Your task to perform on an android device: Clear the shopping cart on bestbuy.com. Search for acer nitro on bestbuy.com, select the first entry, add it to the cart, then select checkout. Image 0: 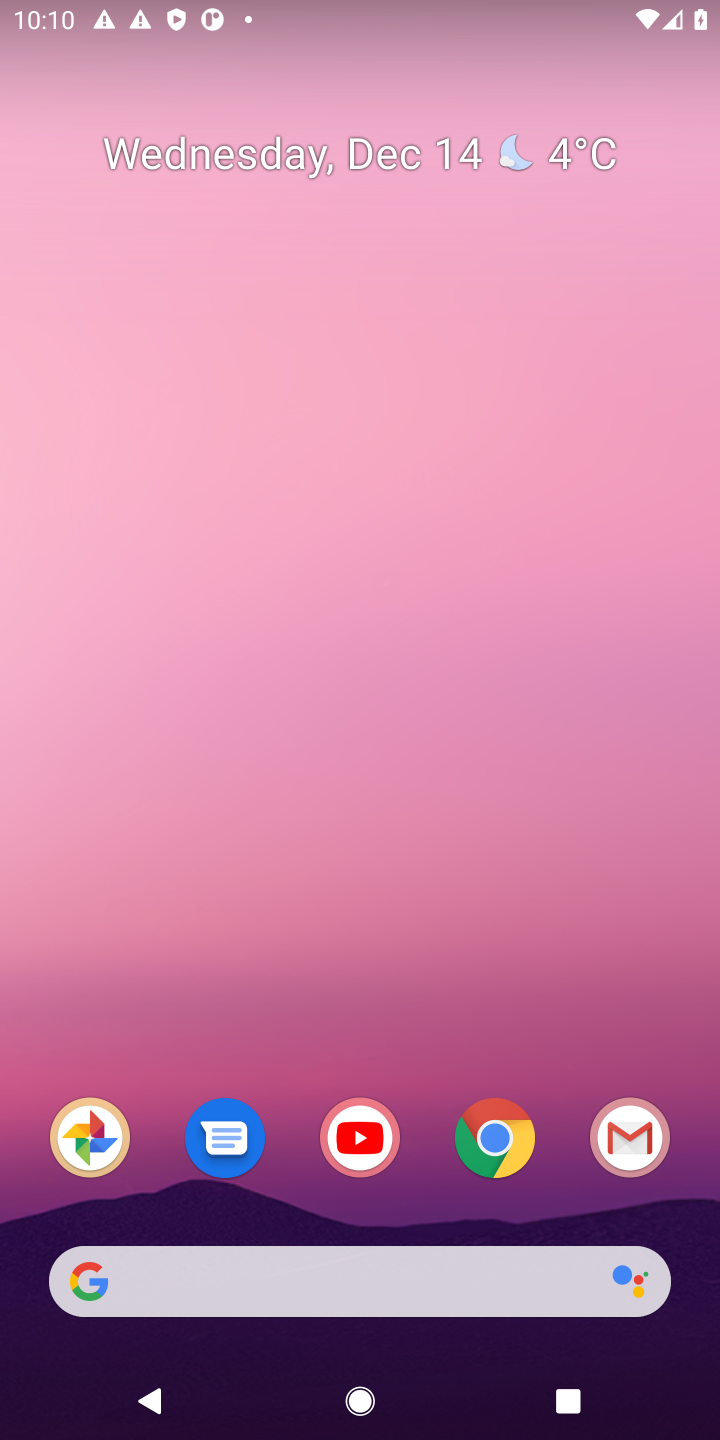
Step 0: click (482, 1147)
Your task to perform on an android device: Clear the shopping cart on bestbuy.com. Search for acer nitro on bestbuy.com, select the first entry, add it to the cart, then select checkout. Image 1: 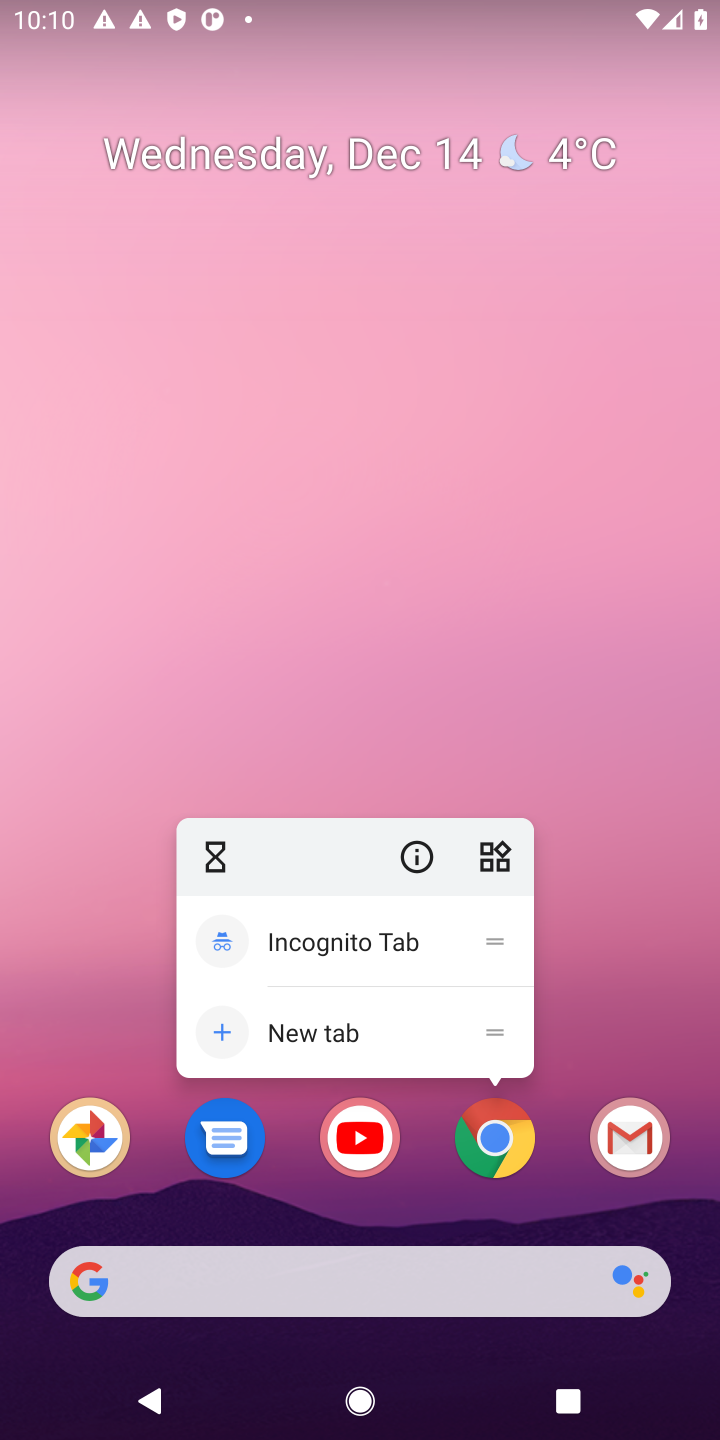
Step 1: click (482, 1147)
Your task to perform on an android device: Clear the shopping cart on bestbuy.com. Search for acer nitro on bestbuy.com, select the first entry, add it to the cart, then select checkout. Image 2: 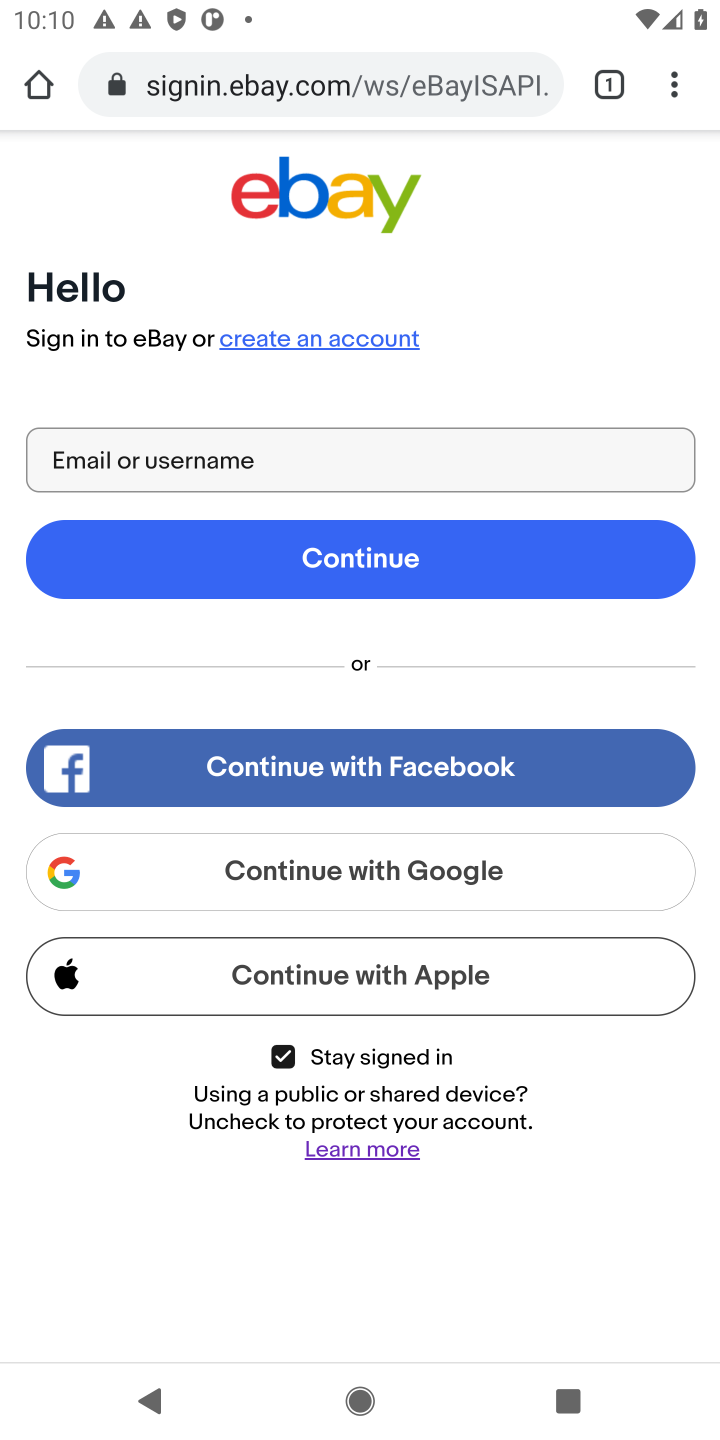
Step 2: click (292, 86)
Your task to perform on an android device: Clear the shopping cart on bestbuy.com. Search for acer nitro on bestbuy.com, select the first entry, add it to the cart, then select checkout. Image 3: 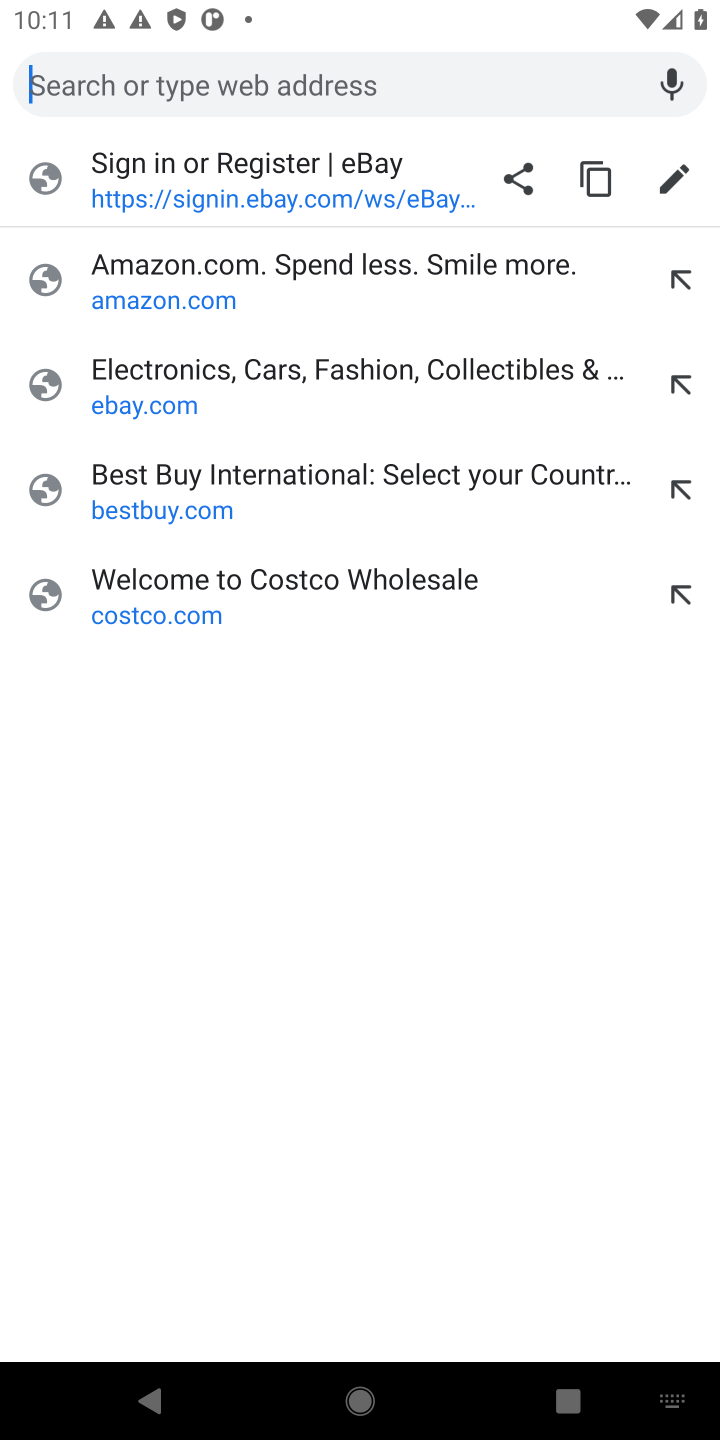
Step 3: click (143, 504)
Your task to perform on an android device: Clear the shopping cart on bestbuy.com. Search for acer nitro on bestbuy.com, select the first entry, add it to the cart, then select checkout. Image 4: 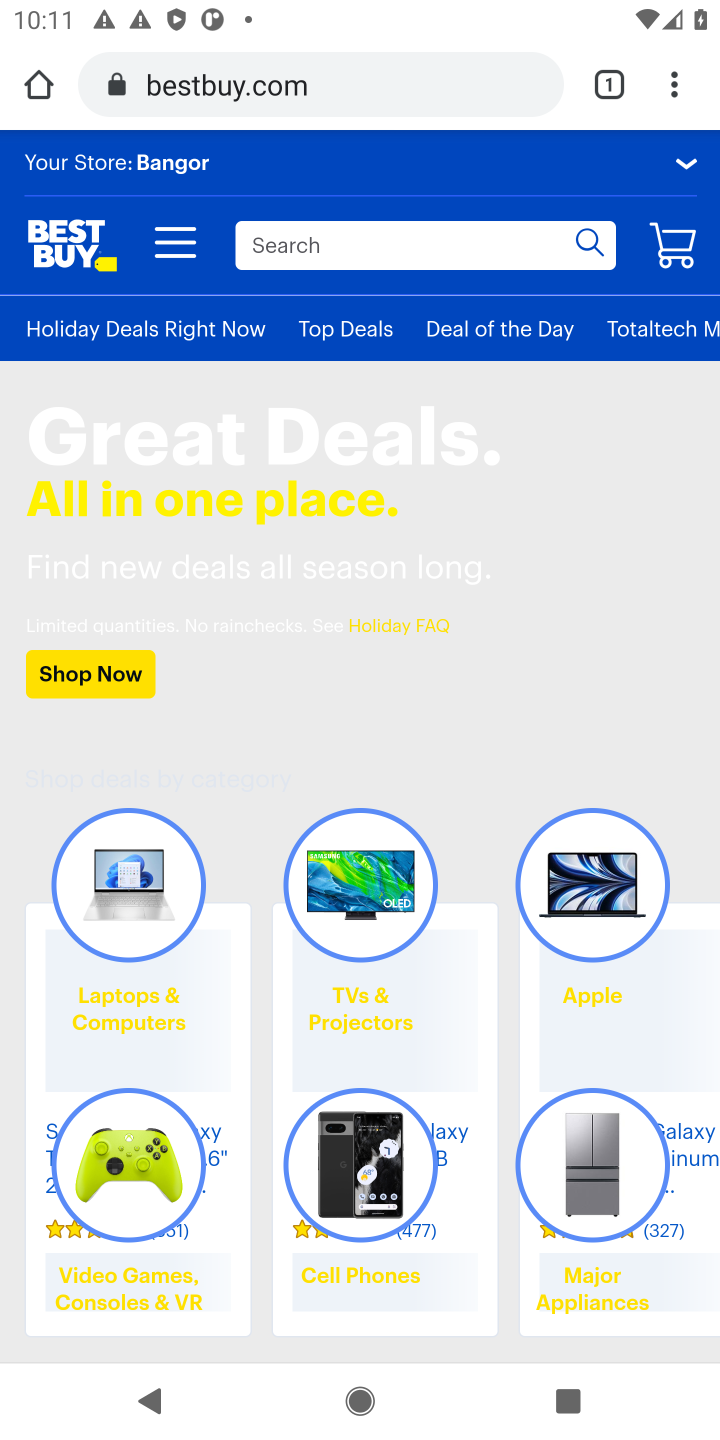
Step 4: click (672, 257)
Your task to perform on an android device: Clear the shopping cart on bestbuy.com. Search for acer nitro on bestbuy.com, select the first entry, add it to the cart, then select checkout. Image 5: 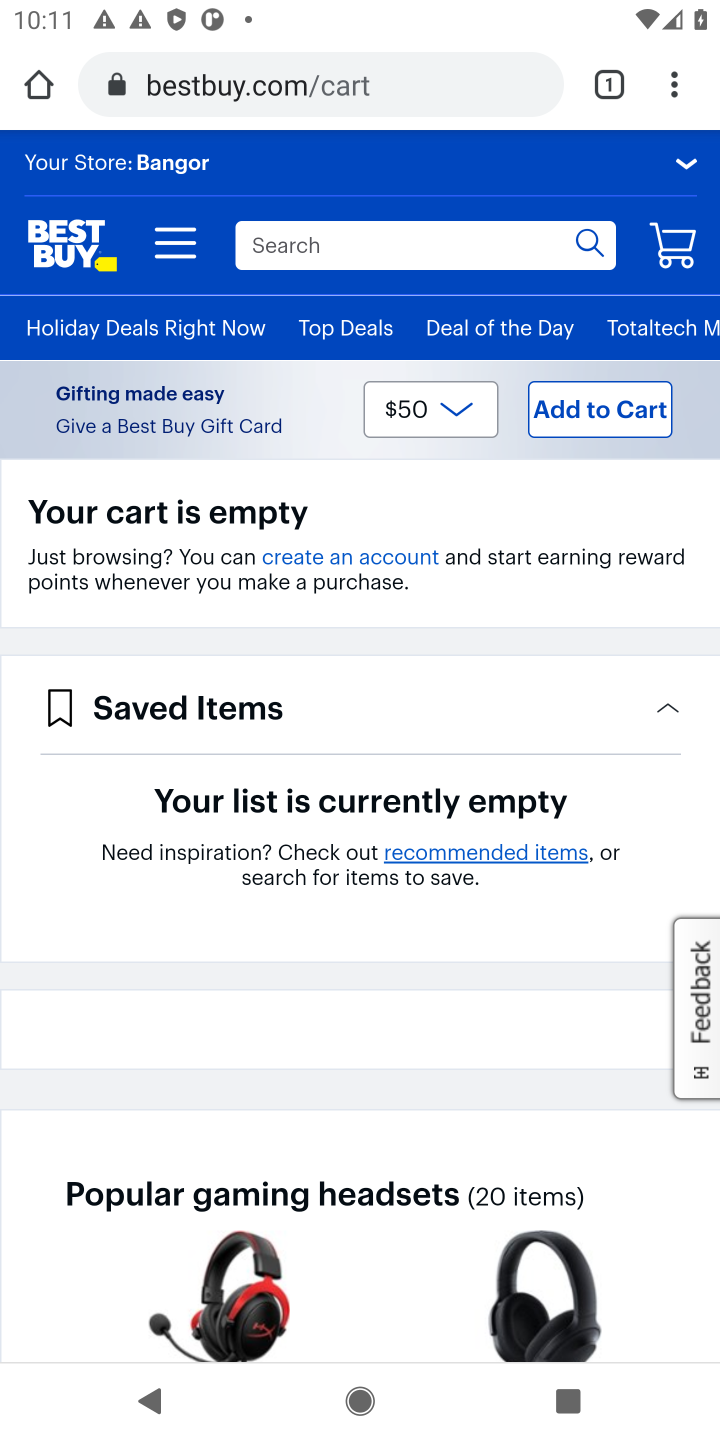
Step 5: click (316, 230)
Your task to perform on an android device: Clear the shopping cart on bestbuy.com. Search for acer nitro on bestbuy.com, select the first entry, add it to the cart, then select checkout. Image 6: 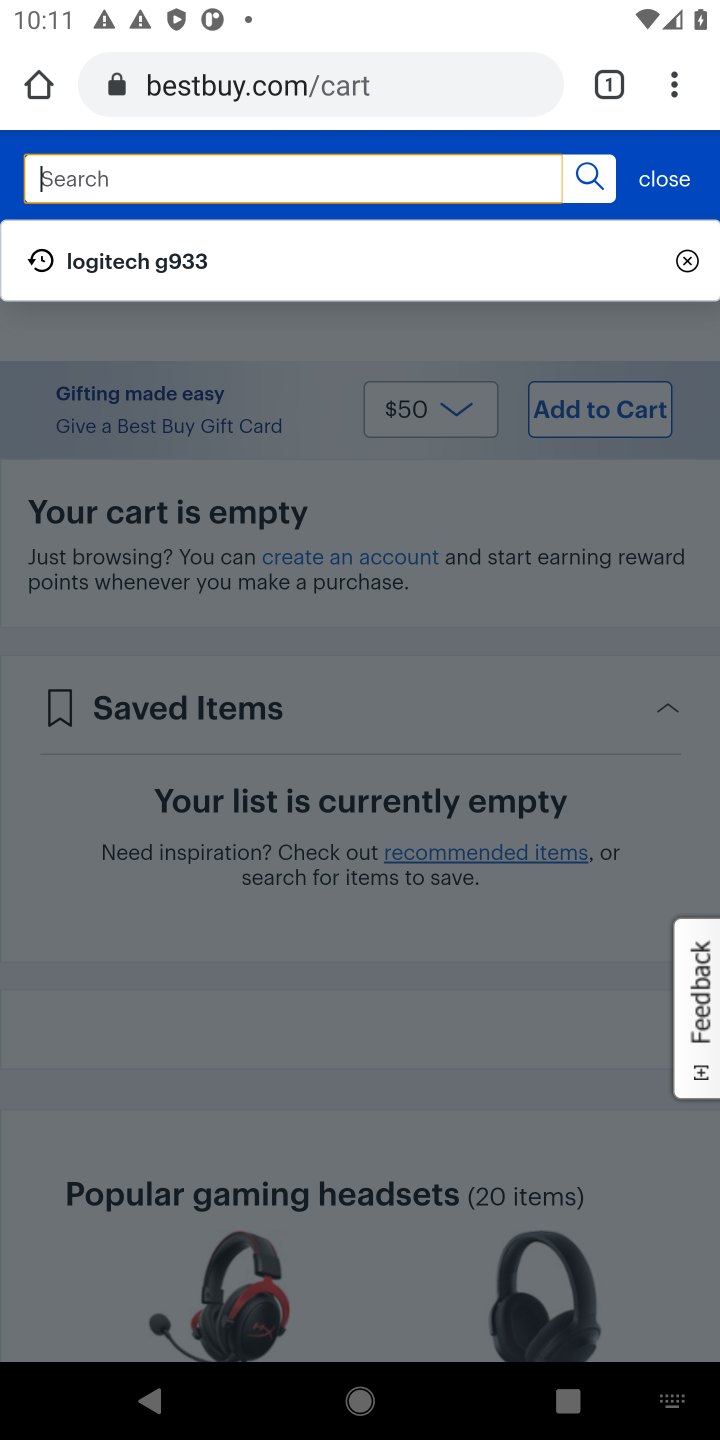
Step 6: type "acer nitro"
Your task to perform on an android device: Clear the shopping cart on bestbuy.com. Search for acer nitro on bestbuy.com, select the first entry, add it to the cart, then select checkout. Image 7: 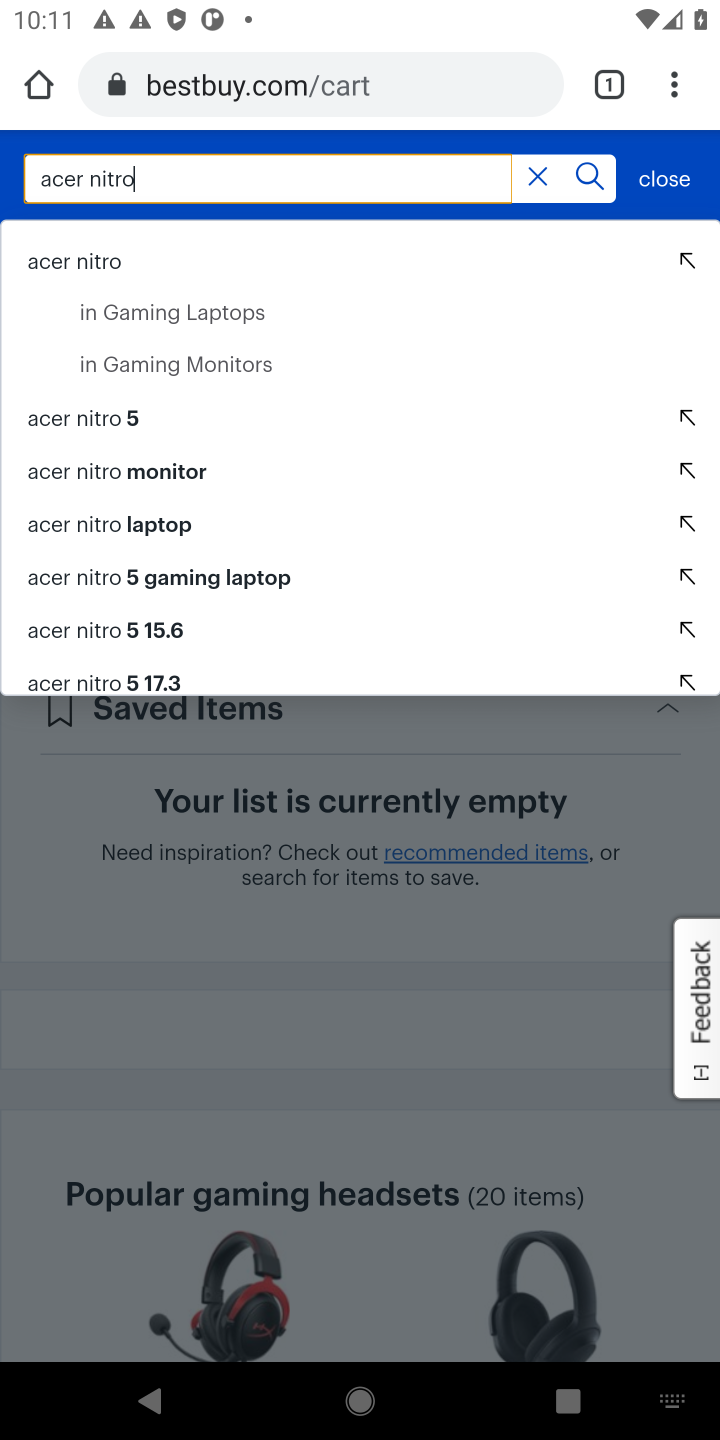
Step 7: click (113, 264)
Your task to perform on an android device: Clear the shopping cart on bestbuy.com. Search for acer nitro on bestbuy.com, select the first entry, add it to the cart, then select checkout. Image 8: 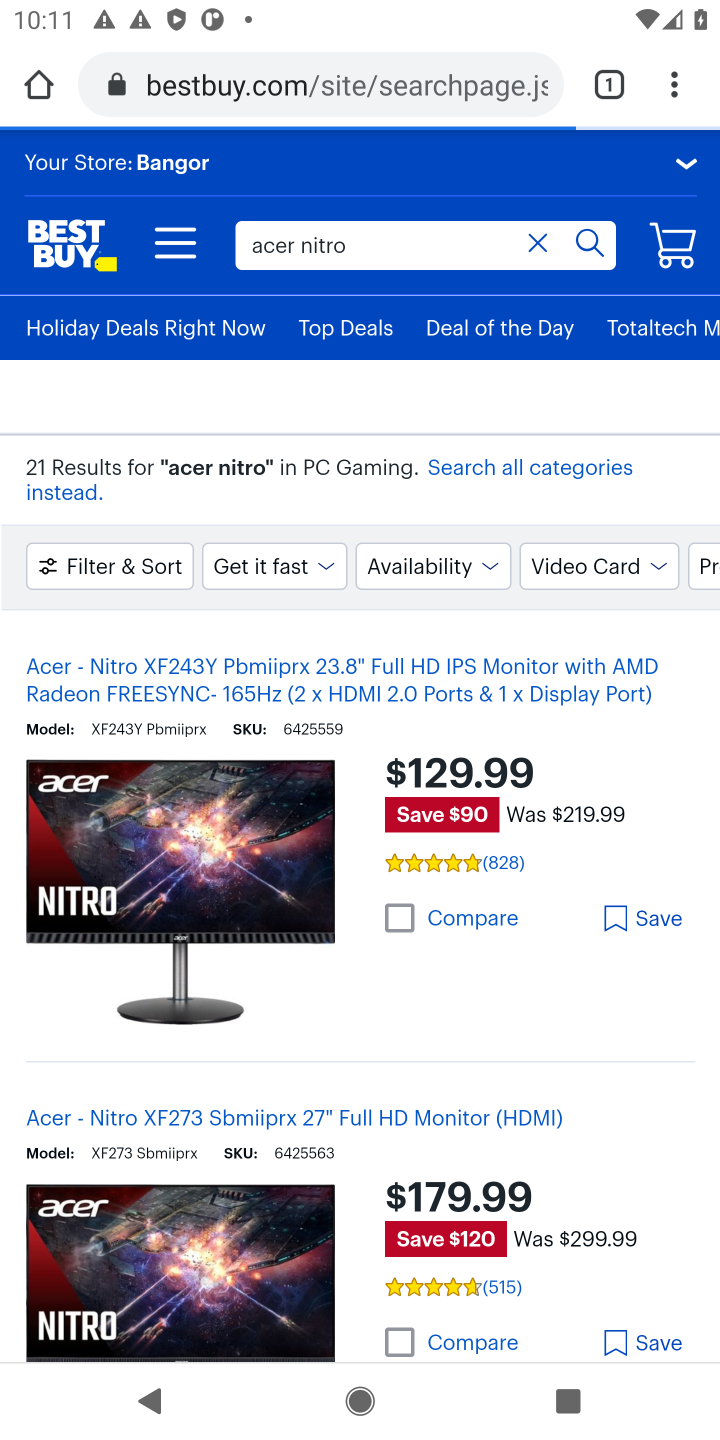
Step 8: click (160, 892)
Your task to perform on an android device: Clear the shopping cart on bestbuy.com. Search for acer nitro on bestbuy.com, select the first entry, add it to the cart, then select checkout. Image 9: 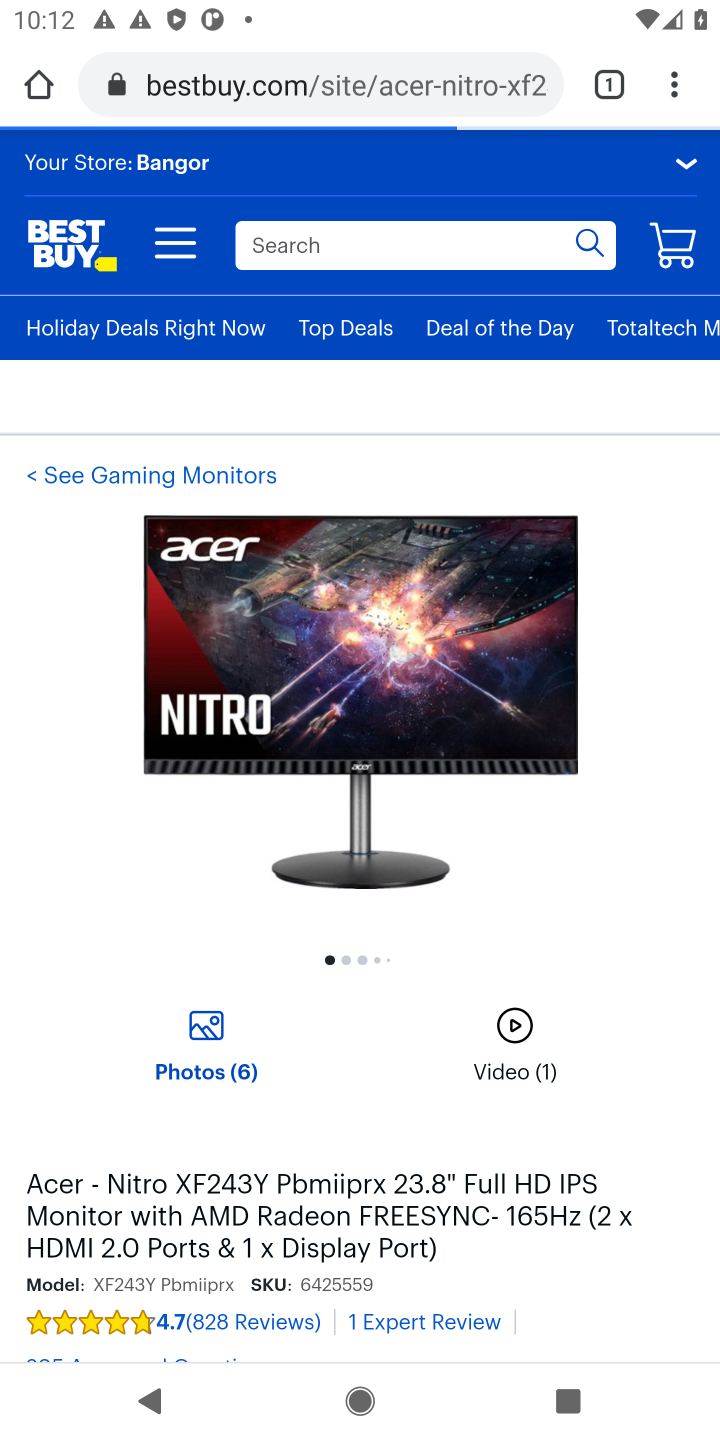
Step 9: drag from (222, 970) to (222, 332)
Your task to perform on an android device: Clear the shopping cart on bestbuy.com. Search for acer nitro on bestbuy.com, select the first entry, add it to the cart, then select checkout. Image 10: 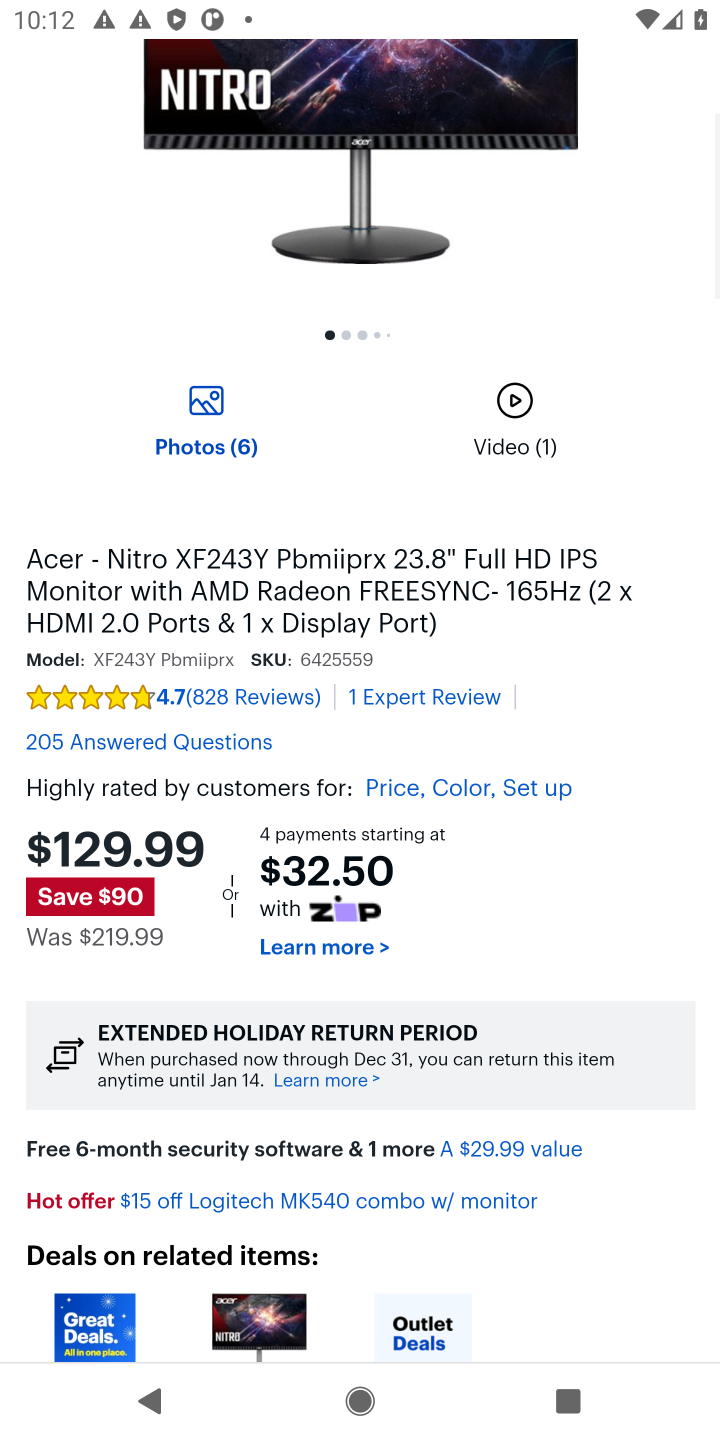
Step 10: drag from (279, 876) to (266, 297)
Your task to perform on an android device: Clear the shopping cart on bestbuy.com. Search for acer nitro on bestbuy.com, select the first entry, add it to the cart, then select checkout. Image 11: 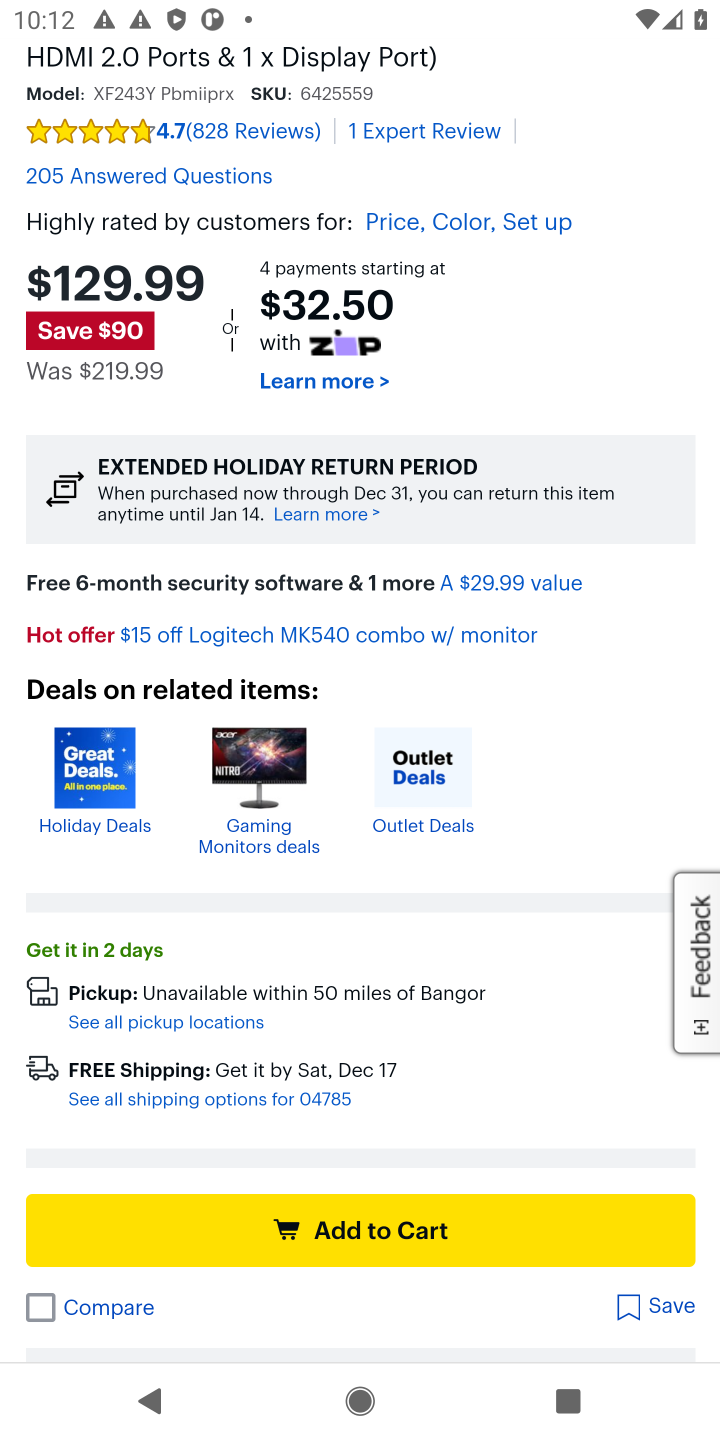
Step 11: click (364, 1220)
Your task to perform on an android device: Clear the shopping cart on bestbuy.com. Search for acer nitro on bestbuy.com, select the first entry, add it to the cart, then select checkout. Image 12: 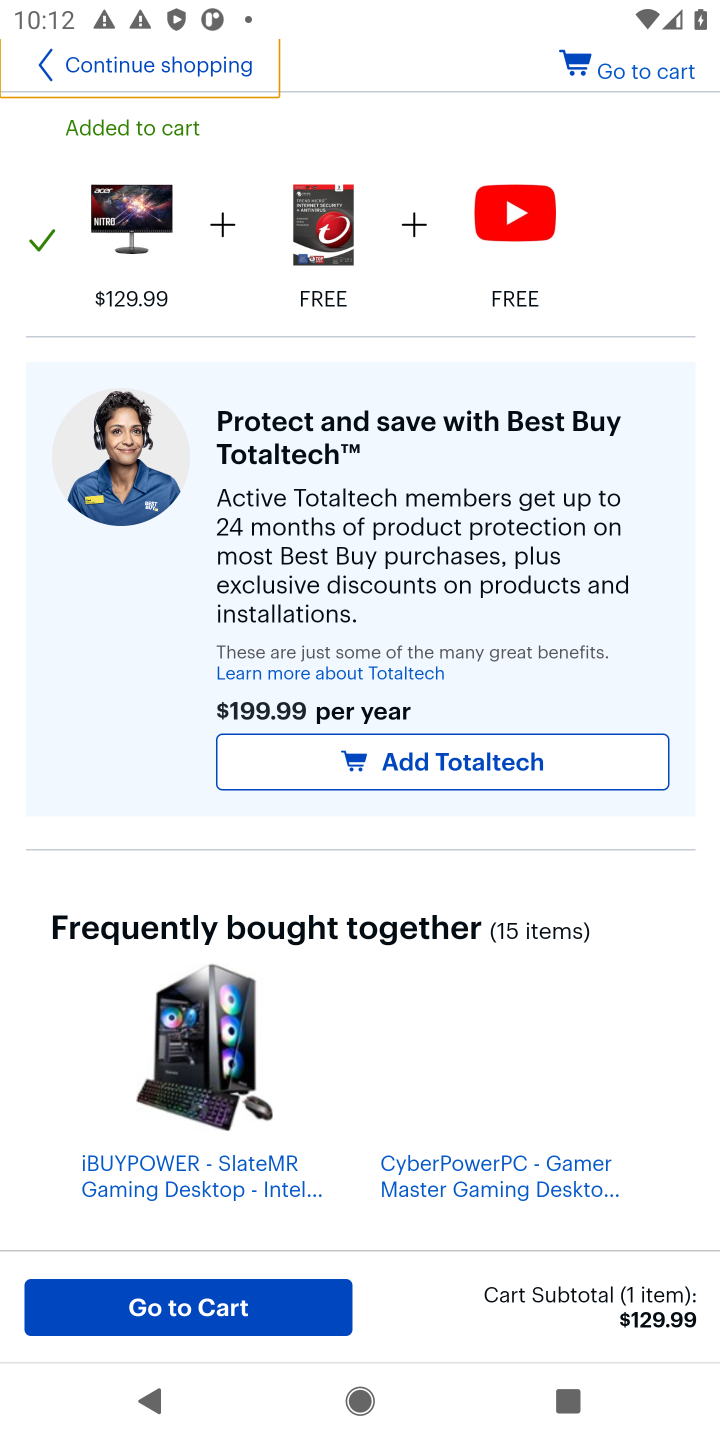
Step 12: click (649, 76)
Your task to perform on an android device: Clear the shopping cart on bestbuy.com. Search for acer nitro on bestbuy.com, select the first entry, add it to the cart, then select checkout. Image 13: 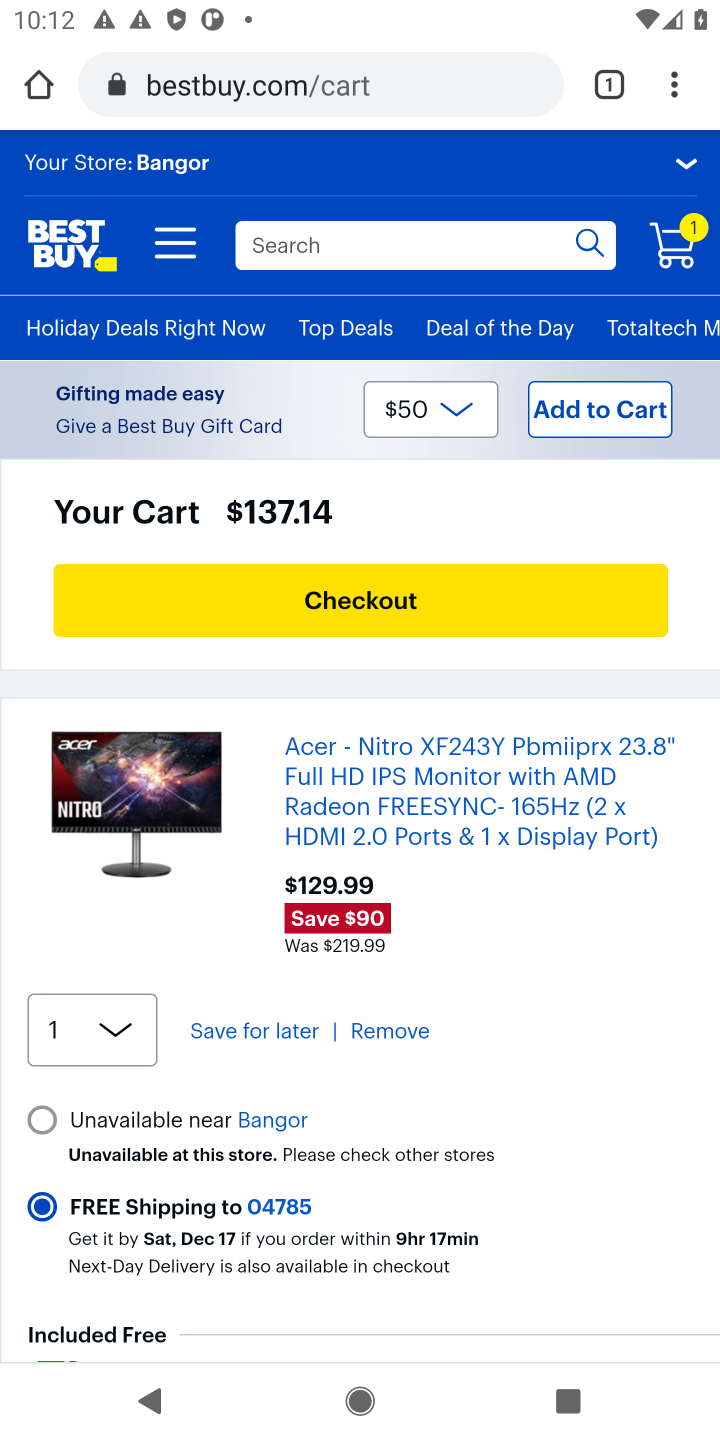
Step 13: click (352, 597)
Your task to perform on an android device: Clear the shopping cart on bestbuy.com. Search for acer nitro on bestbuy.com, select the first entry, add it to the cart, then select checkout. Image 14: 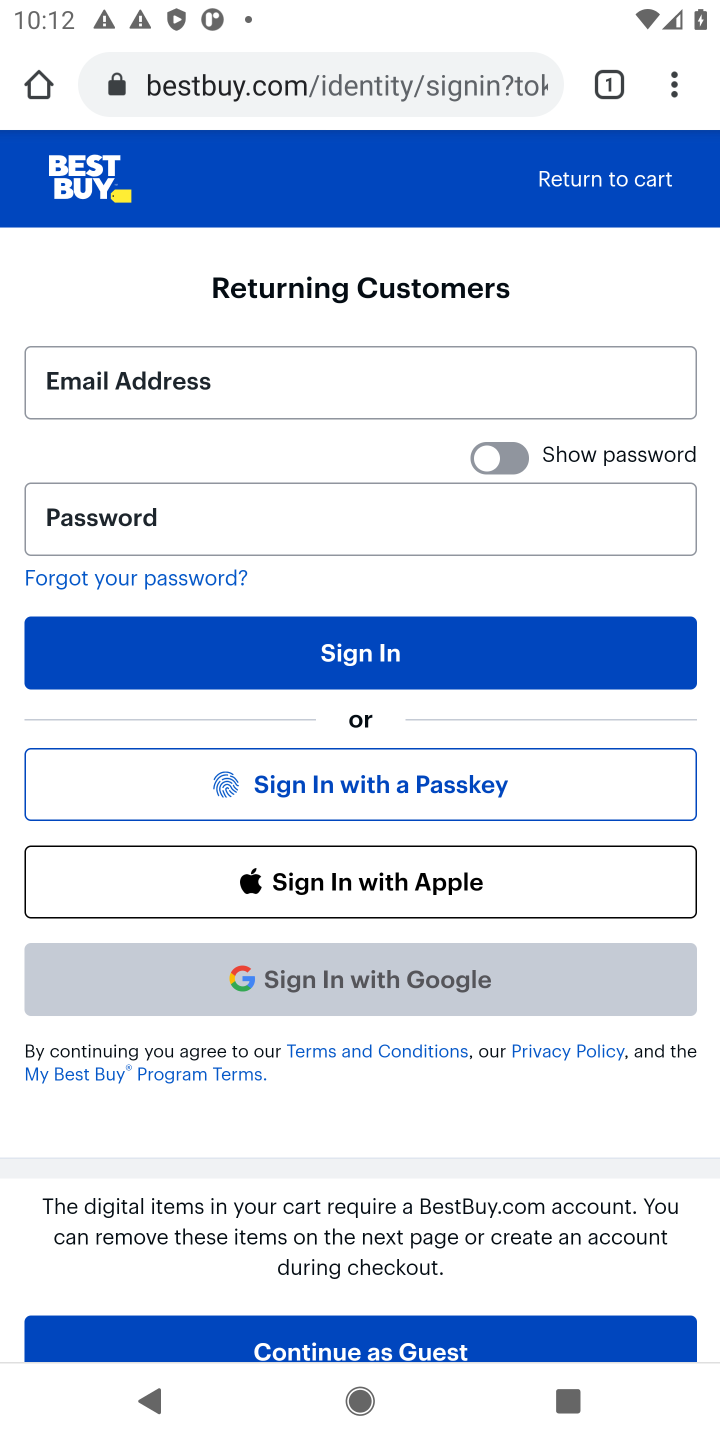
Step 14: task complete